Your task to perform on an android device: open app "Messages" (install if not already installed) Image 0: 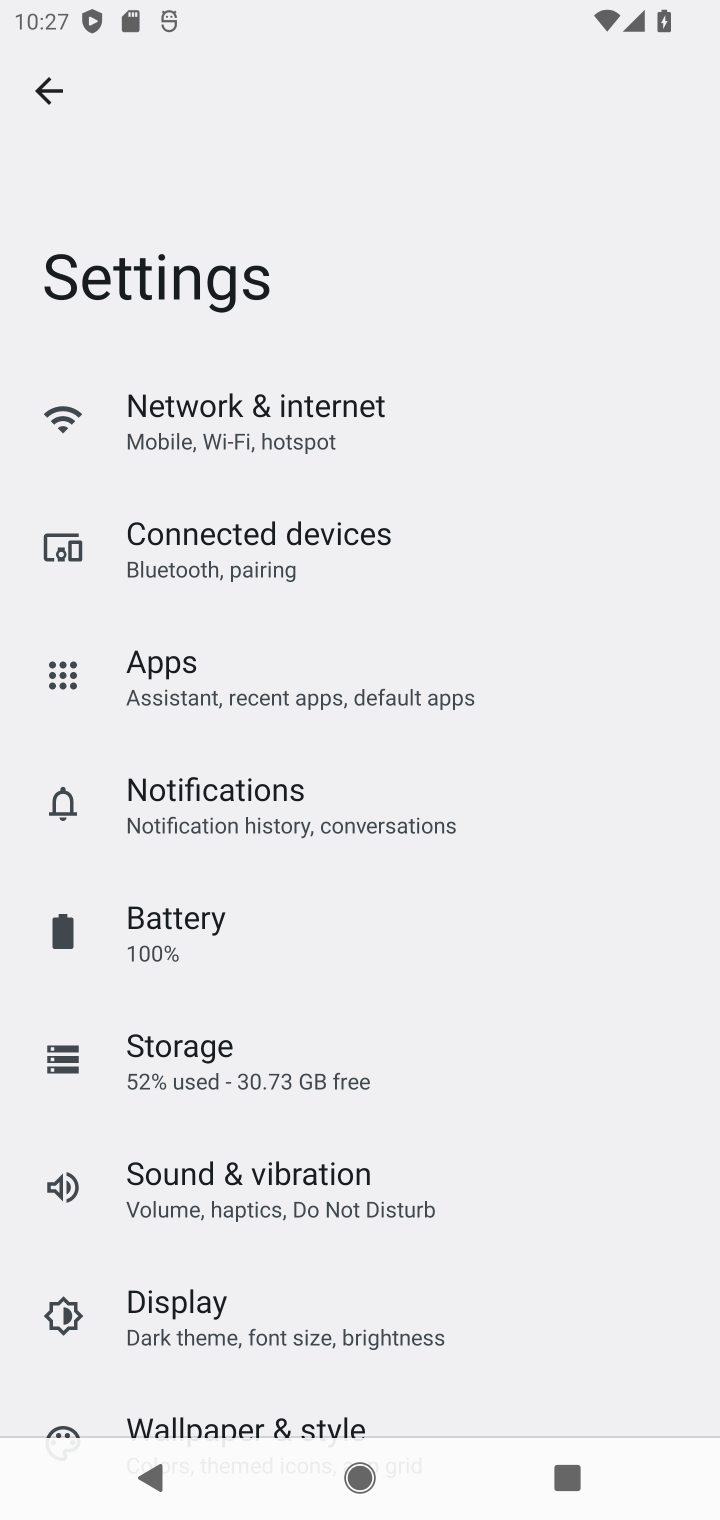
Step 0: press home button
Your task to perform on an android device: open app "Messages" (install if not already installed) Image 1: 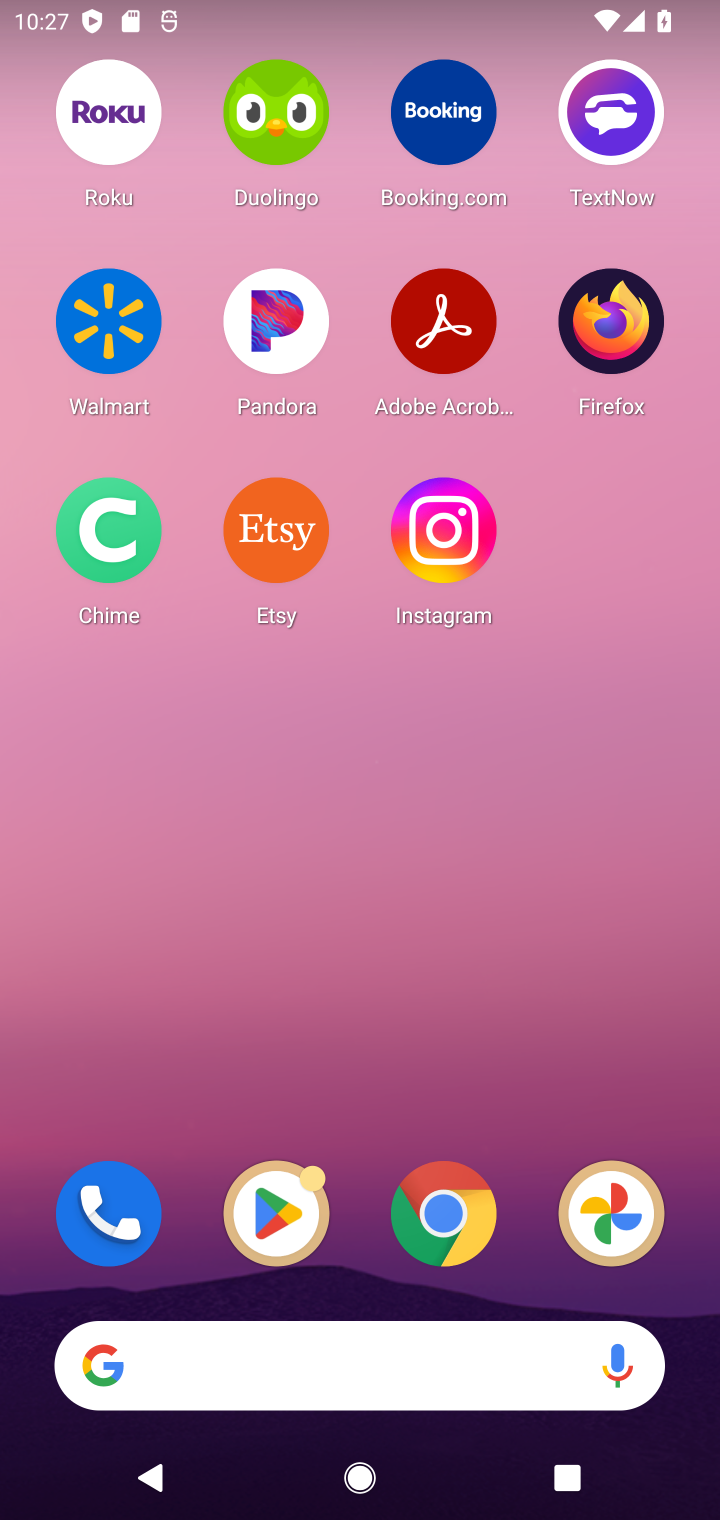
Step 1: click (251, 1195)
Your task to perform on an android device: open app "Messages" (install if not already installed) Image 2: 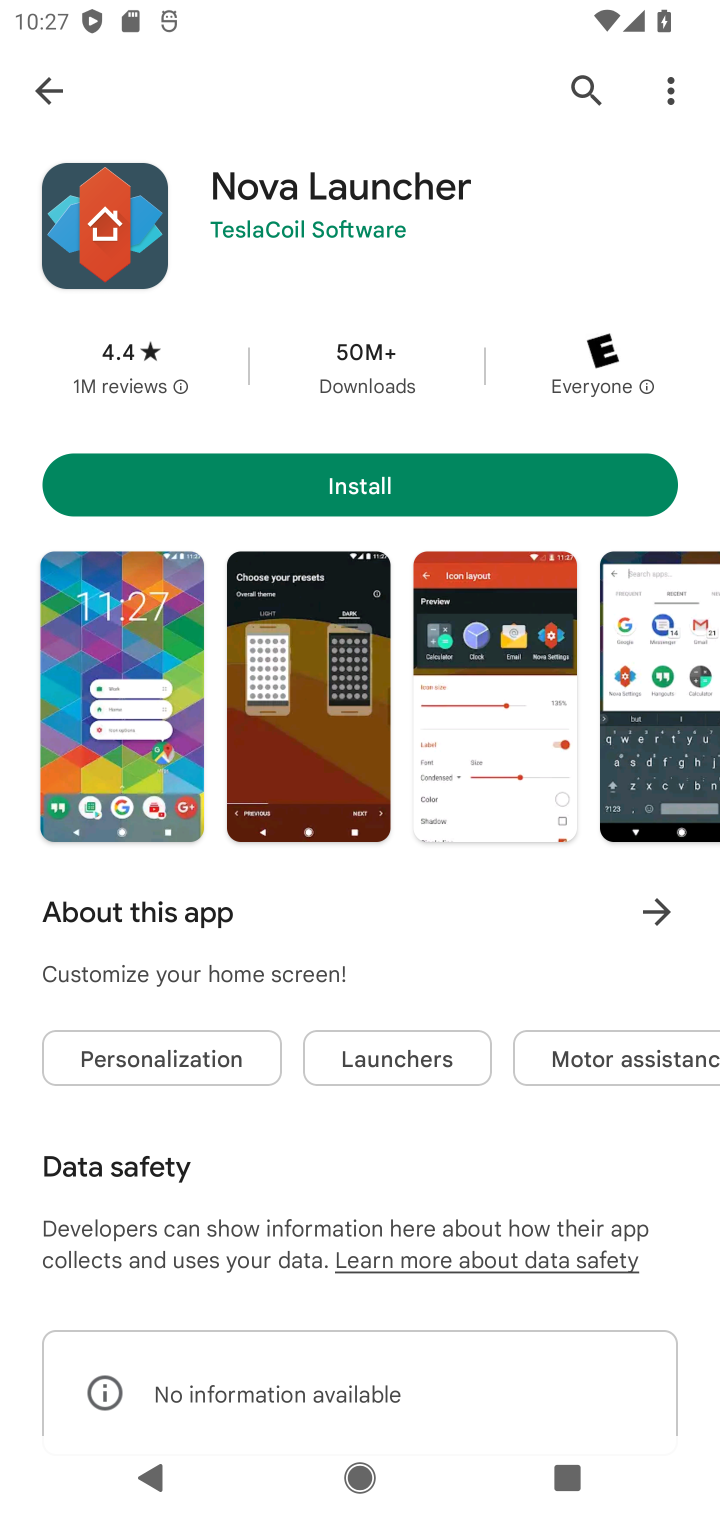
Step 2: click (32, 83)
Your task to perform on an android device: open app "Messages" (install if not already installed) Image 3: 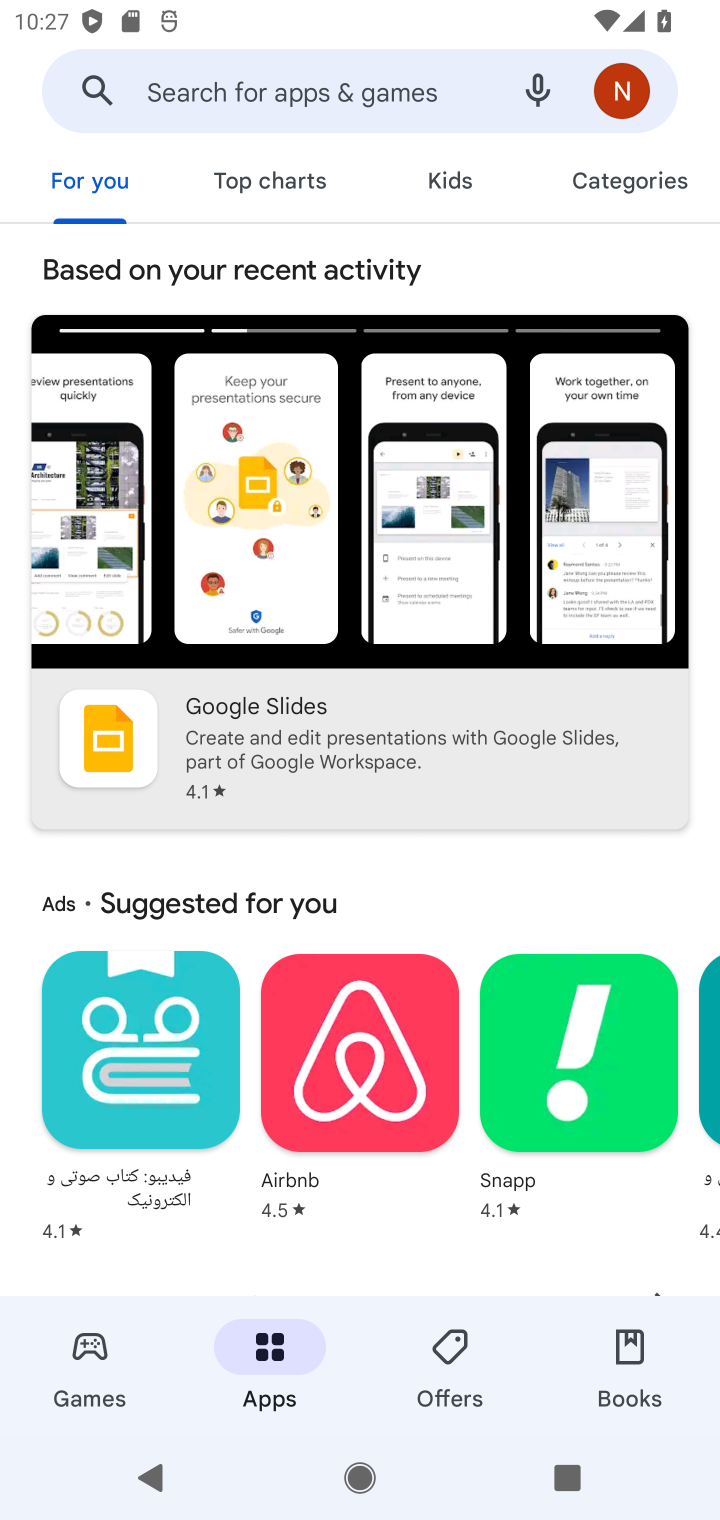
Step 3: click (307, 80)
Your task to perform on an android device: open app "Messages" (install if not already installed) Image 4: 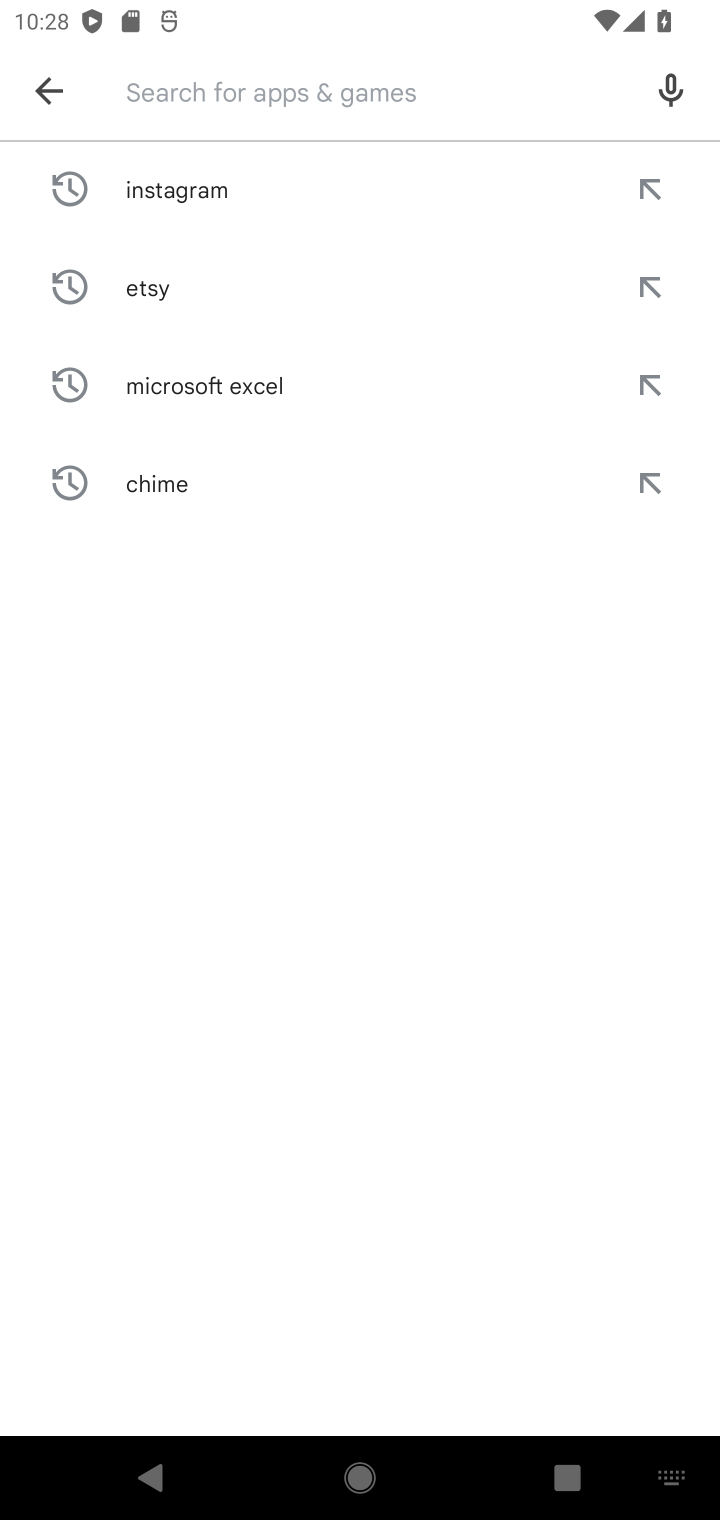
Step 4: type "messages"
Your task to perform on an android device: open app "Messages" (install if not already installed) Image 5: 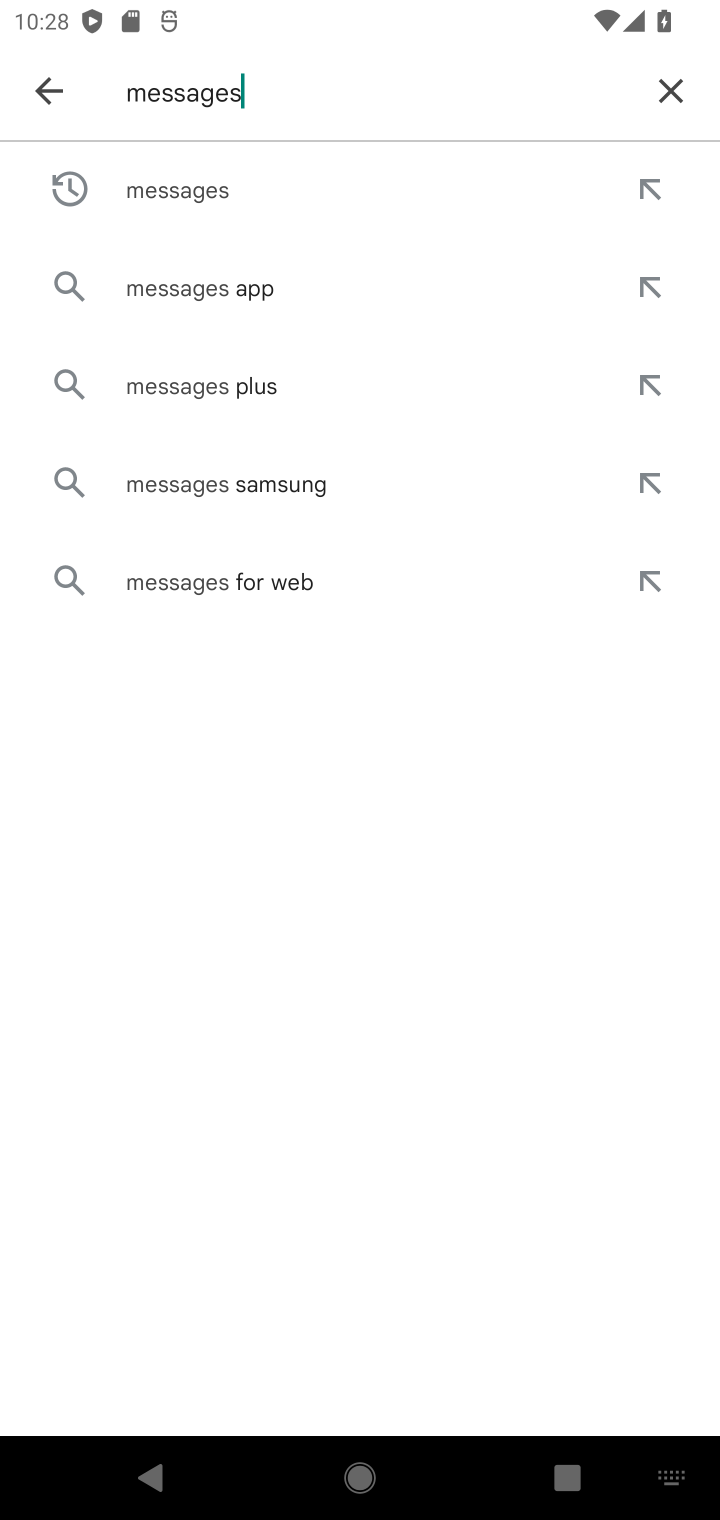
Step 5: click (209, 195)
Your task to perform on an android device: open app "Messages" (install if not already installed) Image 6: 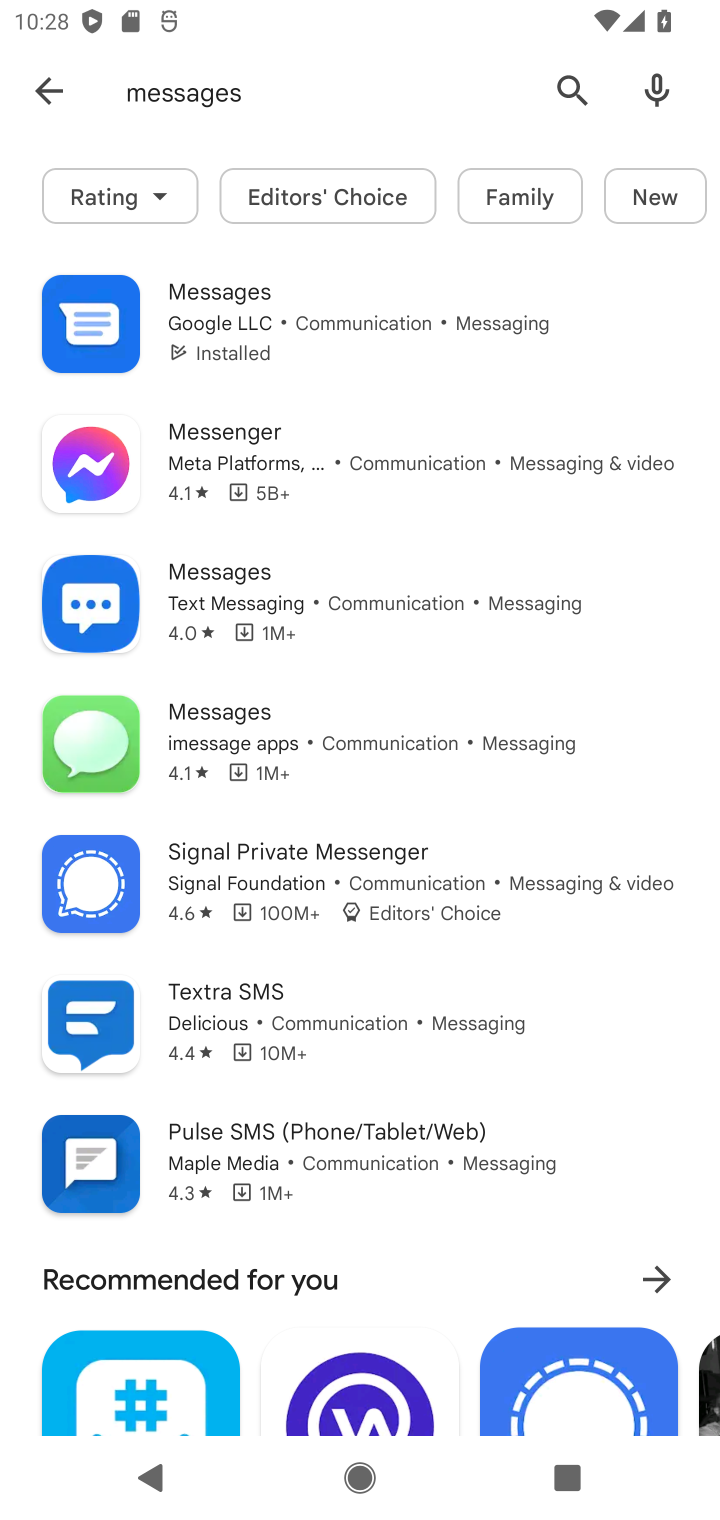
Step 6: click (99, 318)
Your task to perform on an android device: open app "Messages" (install if not already installed) Image 7: 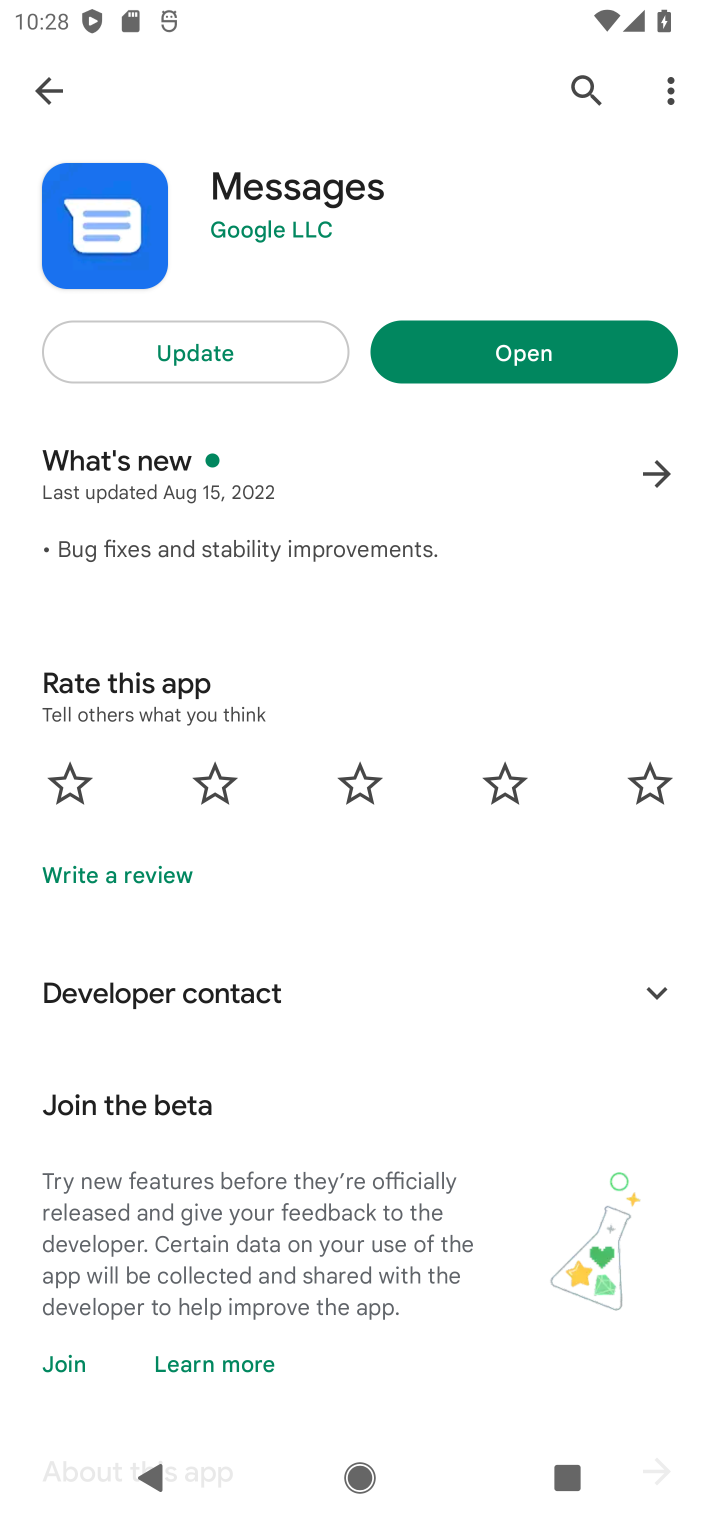
Step 7: click (641, 352)
Your task to perform on an android device: open app "Messages" (install if not already installed) Image 8: 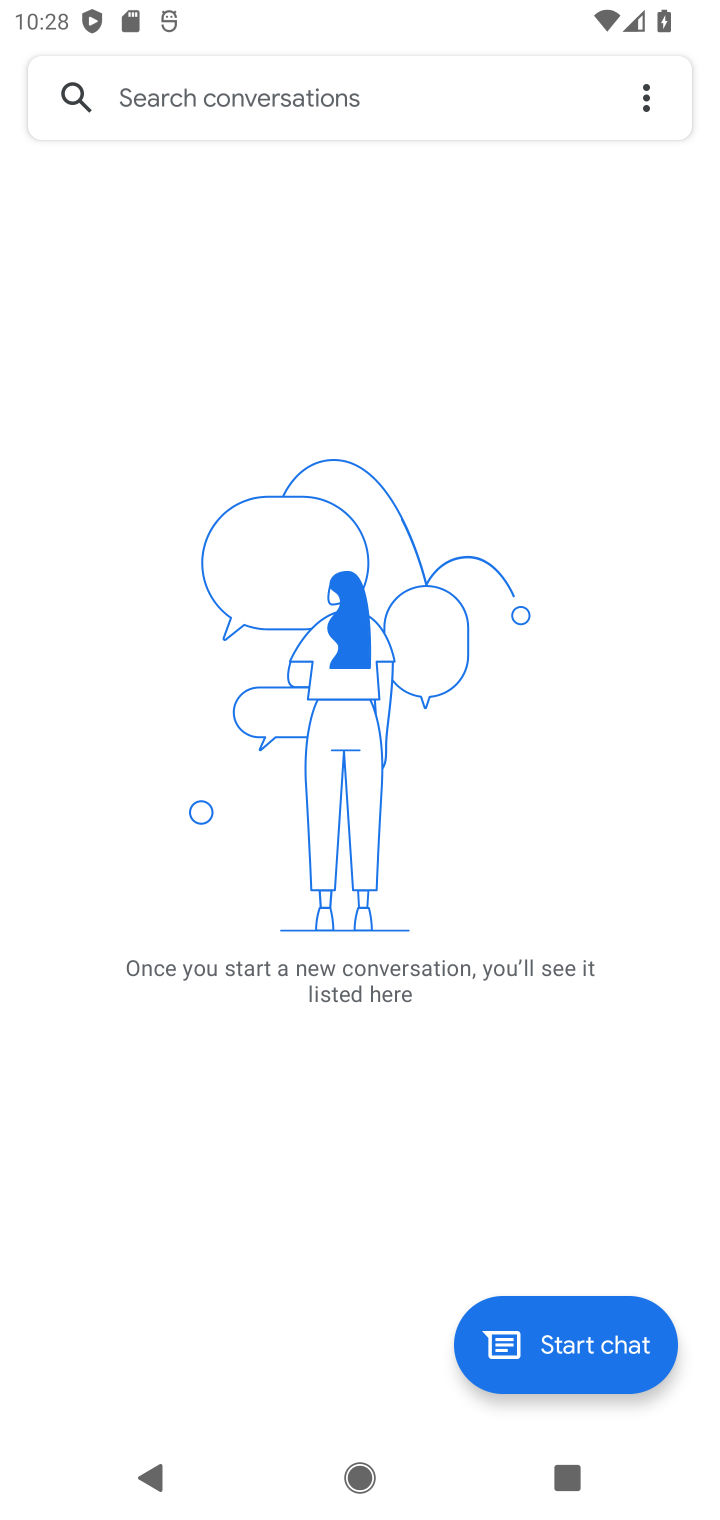
Step 8: task complete